Your task to perform on an android device: Open Chrome and go to the settings page Image 0: 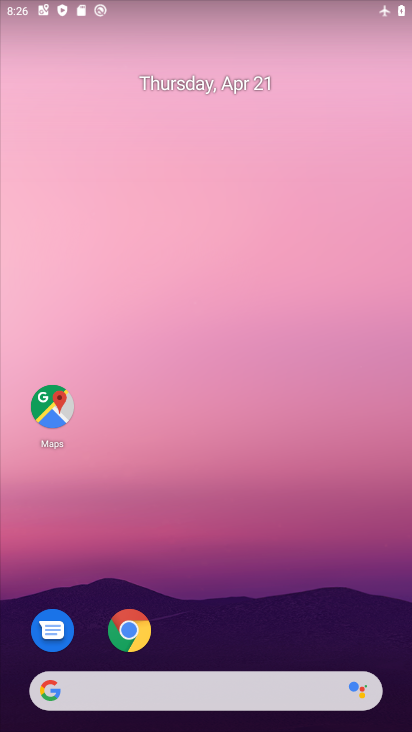
Step 0: drag from (181, 649) to (240, 108)
Your task to perform on an android device: Open Chrome and go to the settings page Image 1: 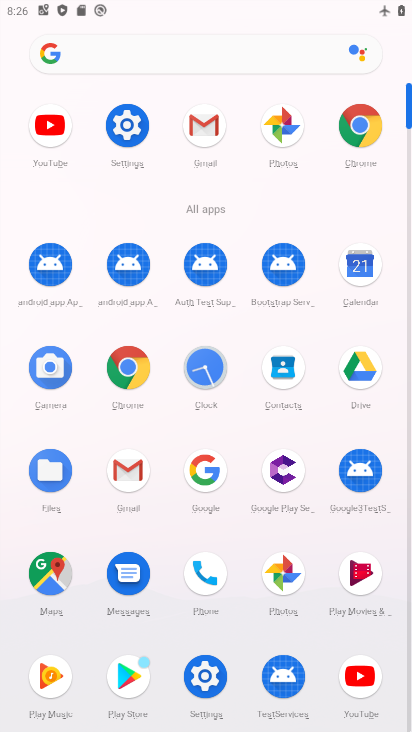
Step 1: click (353, 140)
Your task to perform on an android device: Open Chrome and go to the settings page Image 2: 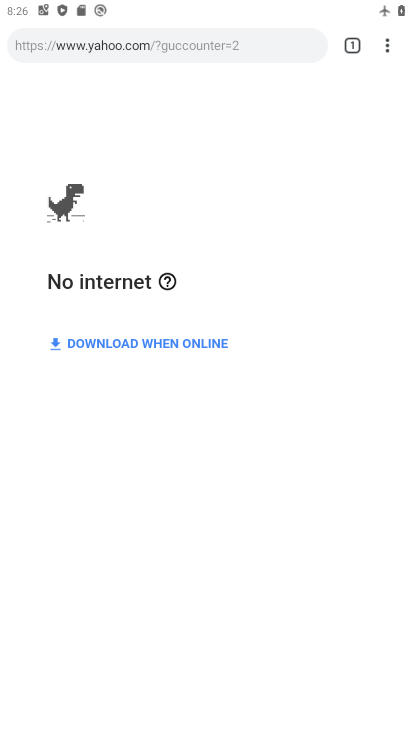
Step 2: click (390, 43)
Your task to perform on an android device: Open Chrome and go to the settings page Image 3: 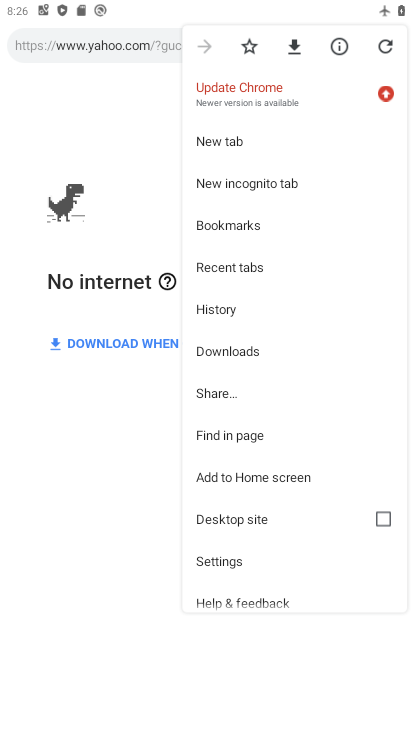
Step 3: click (221, 556)
Your task to perform on an android device: Open Chrome and go to the settings page Image 4: 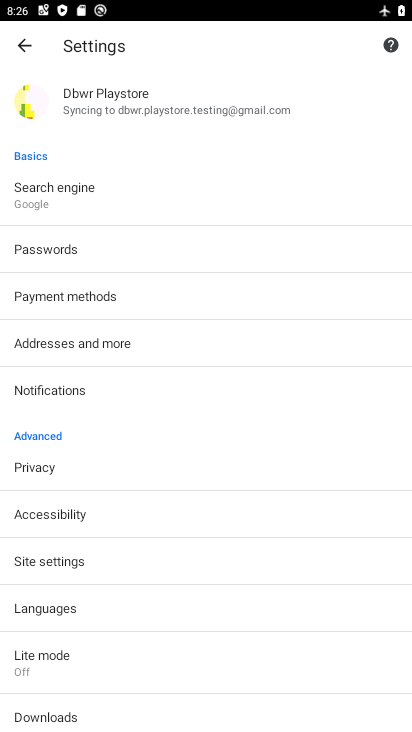
Step 4: task complete